Your task to perform on an android device: Show me popular games on the Play Store Image 0: 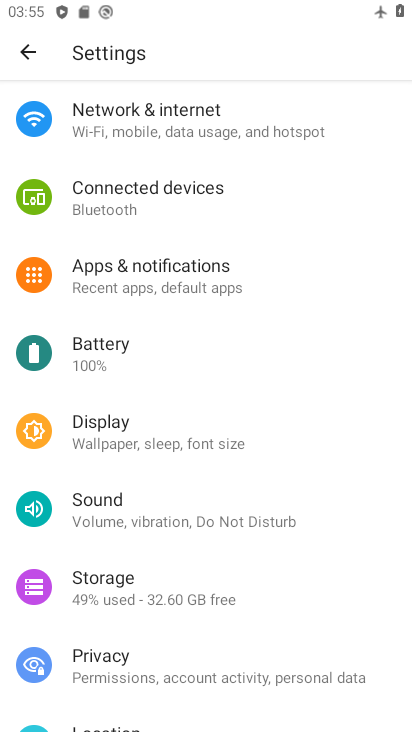
Step 0: press home button
Your task to perform on an android device: Show me popular games on the Play Store Image 1: 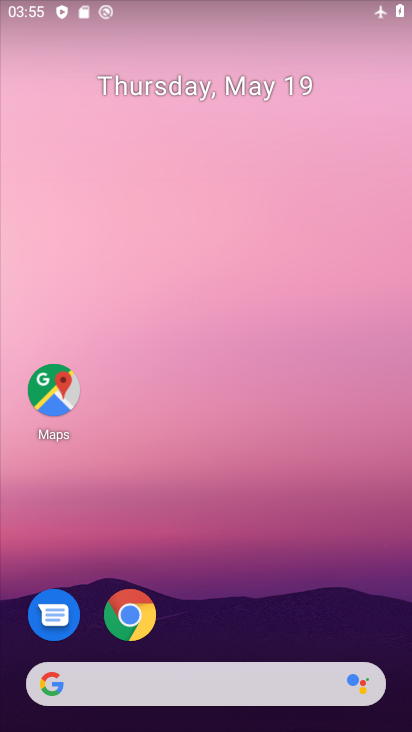
Step 1: drag from (303, 650) to (398, 11)
Your task to perform on an android device: Show me popular games on the Play Store Image 2: 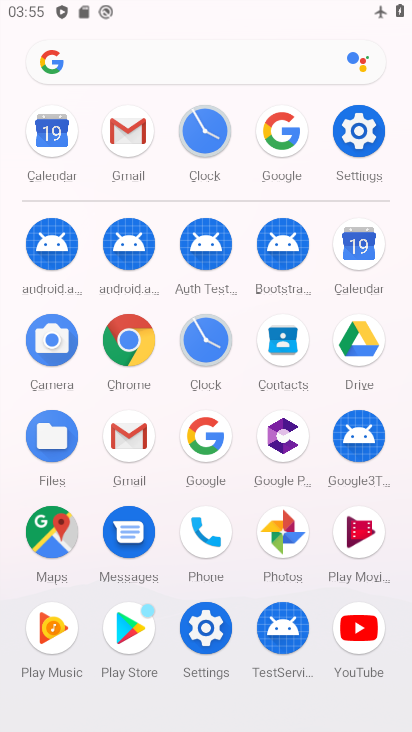
Step 2: click (112, 619)
Your task to perform on an android device: Show me popular games on the Play Store Image 3: 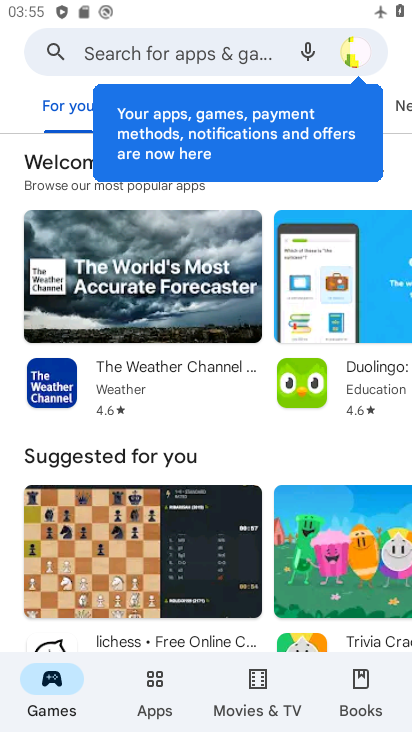
Step 3: drag from (226, 504) to (242, 133)
Your task to perform on an android device: Show me popular games on the Play Store Image 4: 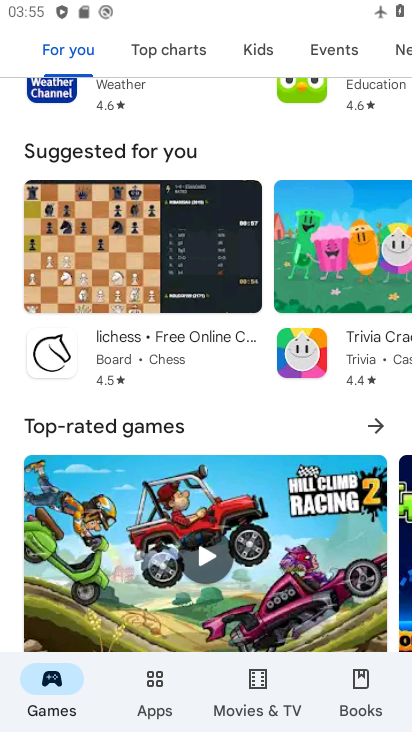
Step 4: drag from (196, 423) to (227, 130)
Your task to perform on an android device: Show me popular games on the Play Store Image 5: 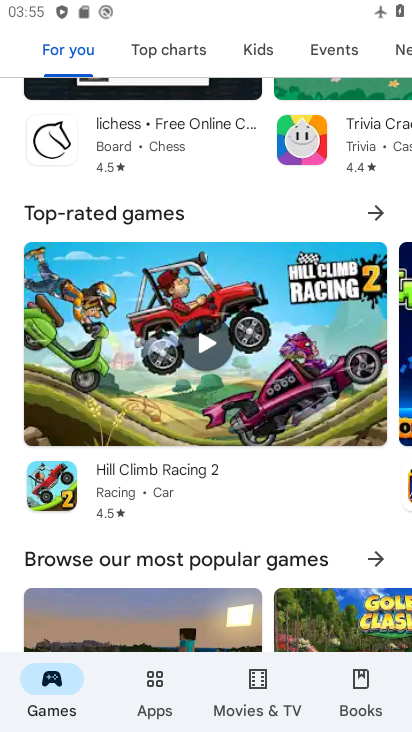
Step 5: click (215, 561)
Your task to perform on an android device: Show me popular games on the Play Store Image 6: 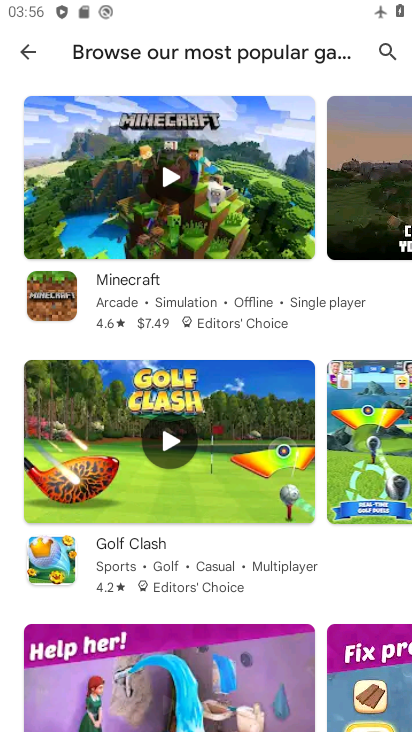
Step 6: task complete